Your task to perform on an android device: toggle data saver in the chrome app Image 0: 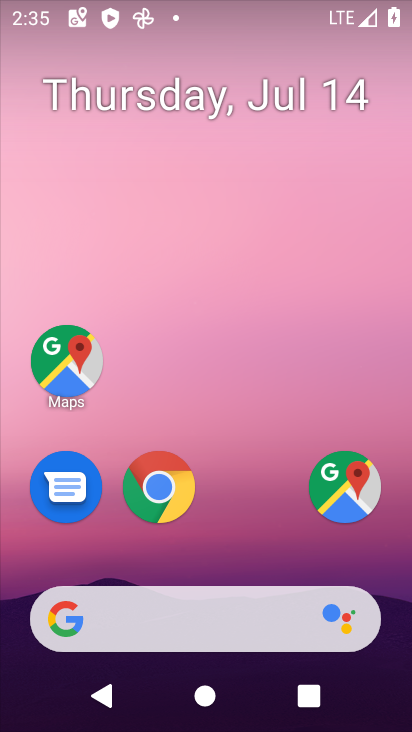
Step 0: drag from (254, 527) to (286, 106)
Your task to perform on an android device: toggle data saver in the chrome app Image 1: 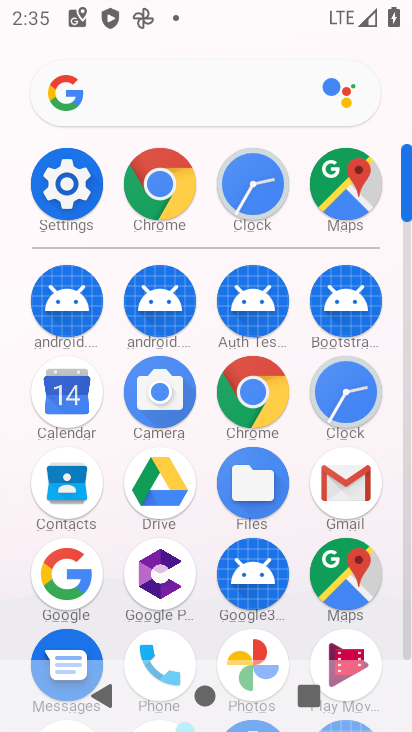
Step 1: click (266, 395)
Your task to perform on an android device: toggle data saver in the chrome app Image 2: 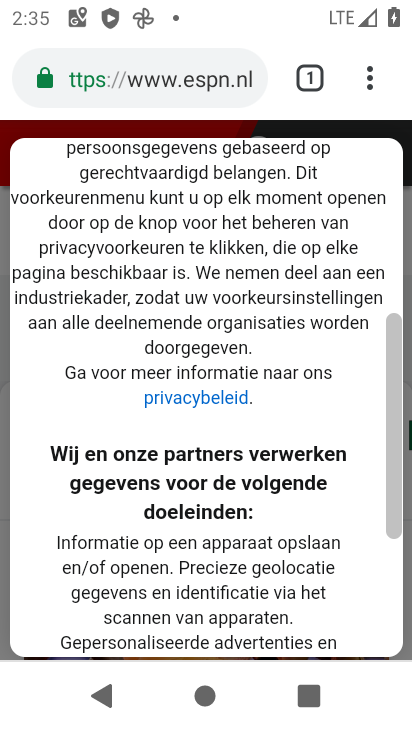
Step 2: click (366, 78)
Your task to perform on an android device: toggle data saver in the chrome app Image 3: 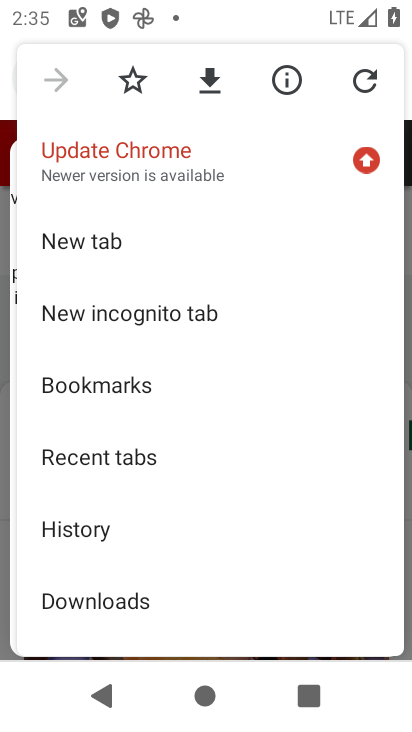
Step 3: drag from (301, 519) to (311, 399)
Your task to perform on an android device: toggle data saver in the chrome app Image 4: 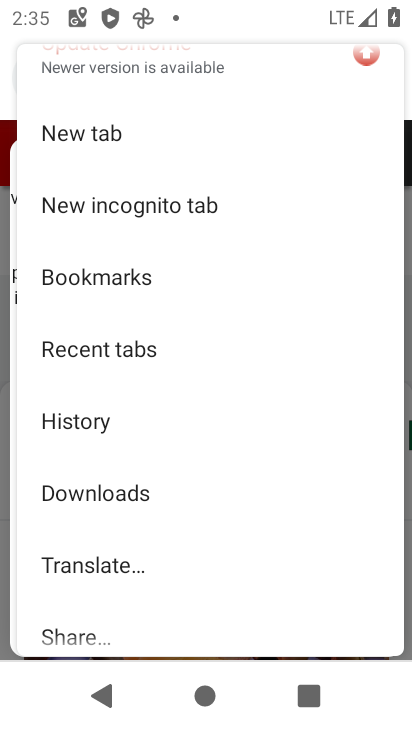
Step 4: drag from (309, 502) to (320, 400)
Your task to perform on an android device: toggle data saver in the chrome app Image 5: 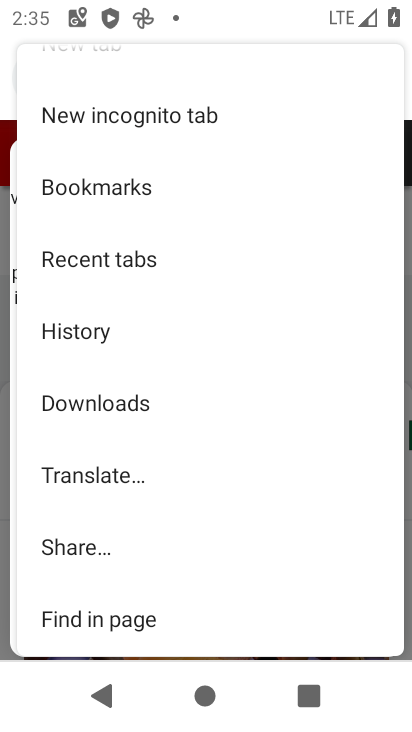
Step 5: drag from (306, 534) to (305, 424)
Your task to perform on an android device: toggle data saver in the chrome app Image 6: 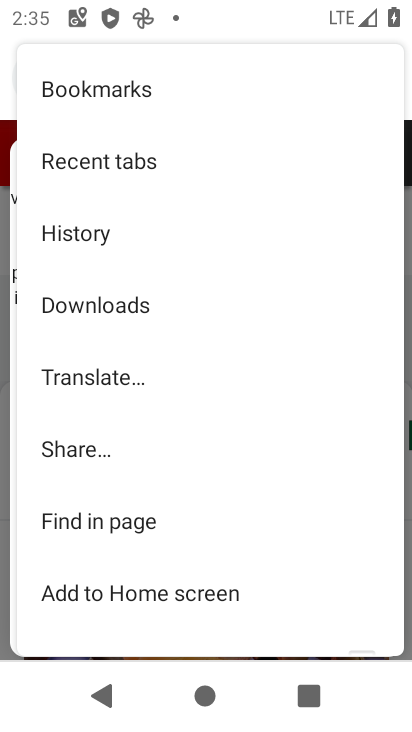
Step 6: drag from (303, 540) to (302, 236)
Your task to perform on an android device: toggle data saver in the chrome app Image 7: 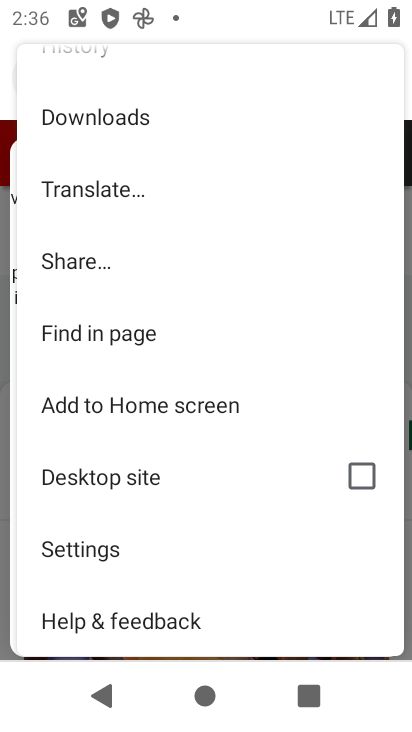
Step 7: click (122, 556)
Your task to perform on an android device: toggle data saver in the chrome app Image 8: 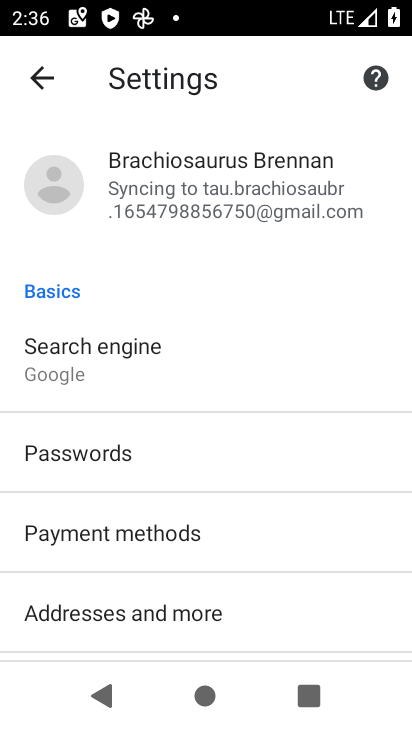
Step 8: drag from (285, 561) to (311, 264)
Your task to perform on an android device: toggle data saver in the chrome app Image 9: 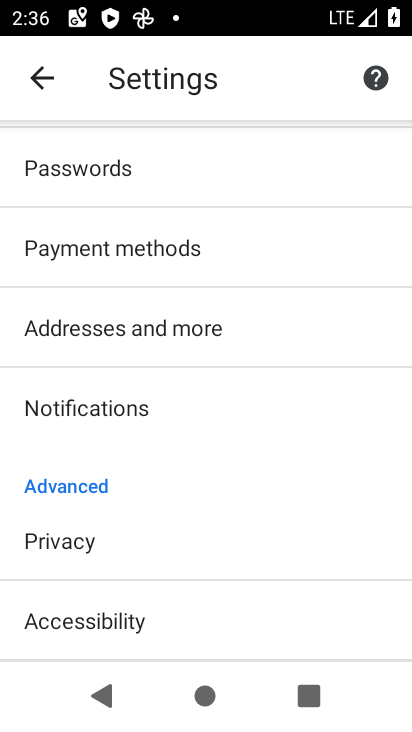
Step 9: drag from (322, 538) to (333, 410)
Your task to perform on an android device: toggle data saver in the chrome app Image 10: 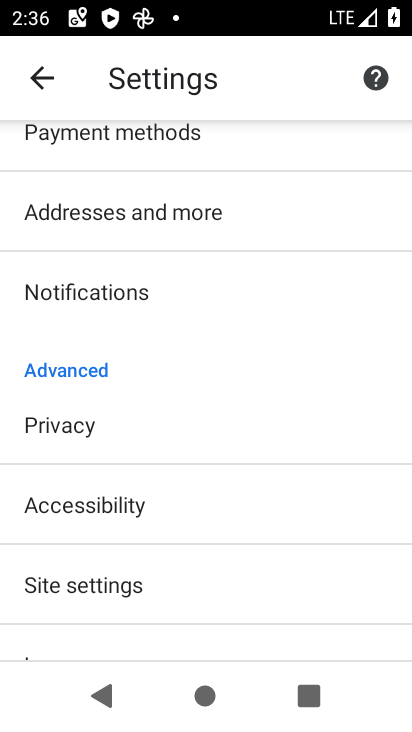
Step 10: drag from (344, 564) to (359, 379)
Your task to perform on an android device: toggle data saver in the chrome app Image 11: 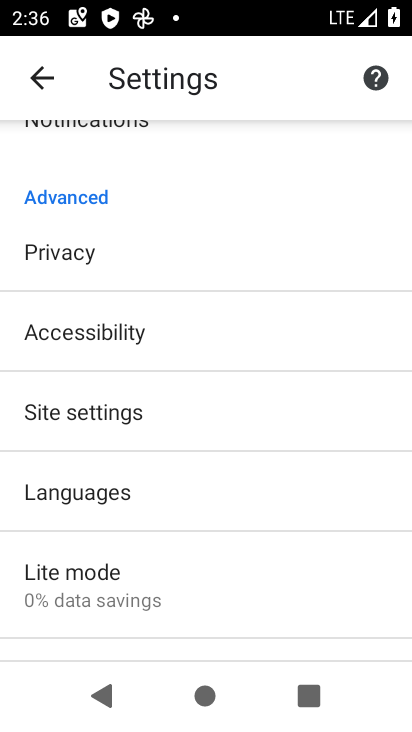
Step 11: drag from (319, 539) to (317, 417)
Your task to perform on an android device: toggle data saver in the chrome app Image 12: 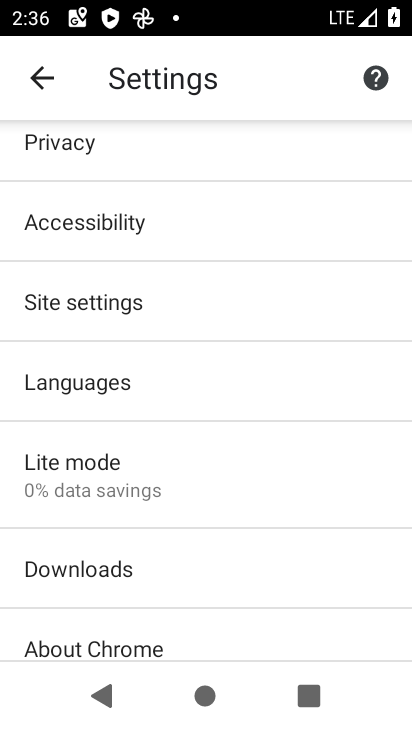
Step 12: click (231, 488)
Your task to perform on an android device: toggle data saver in the chrome app Image 13: 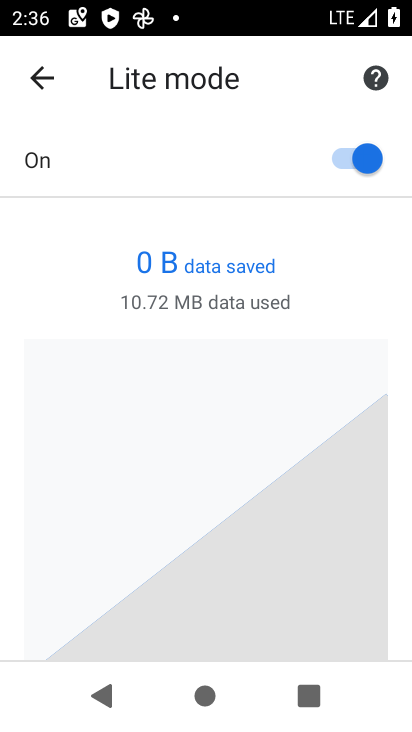
Step 13: click (379, 161)
Your task to perform on an android device: toggle data saver in the chrome app Image 14: 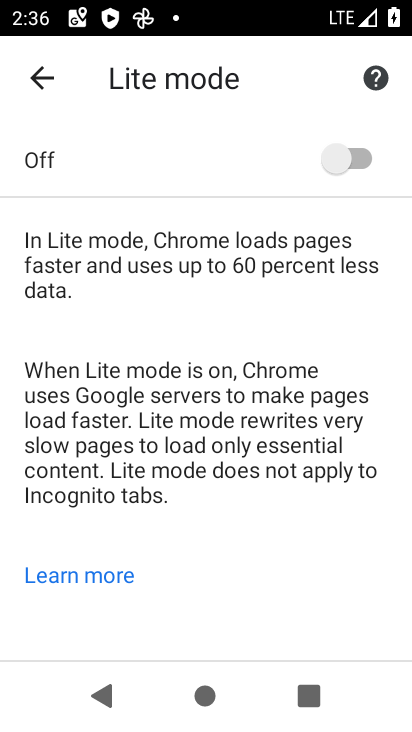
Step 14: task complete